Your task to perform on an android device: Search for sushi restaurants on Maps Image 0: 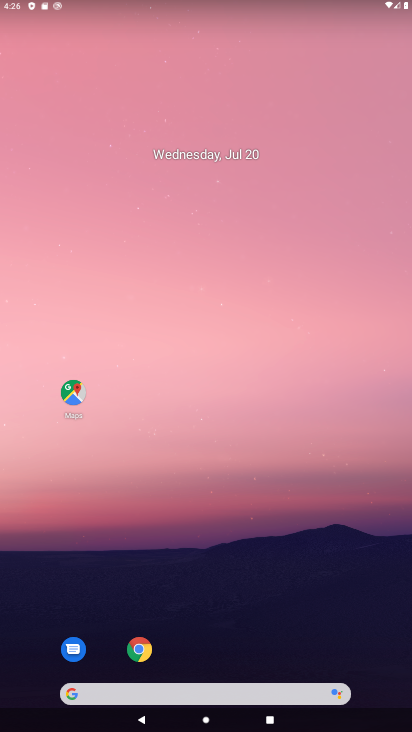
Step 0: click (70, 385)
Your task to perform on an android device: Search for sushi restaurants on Maps Image 1: 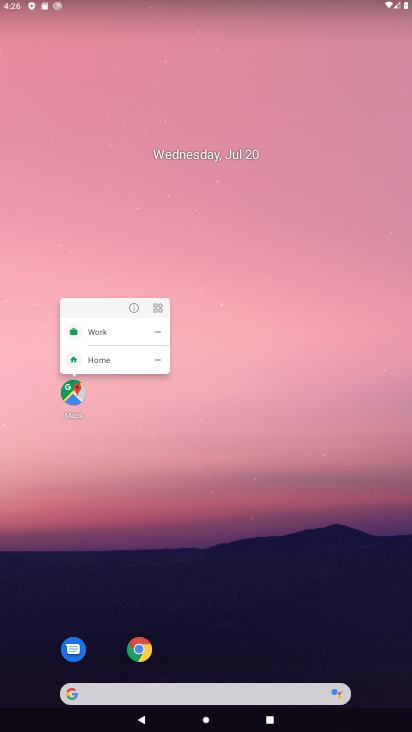
Step 1: click (77, 393)
Your task to perform on an android device: Search for sushi restaurants on Maps Image 2: 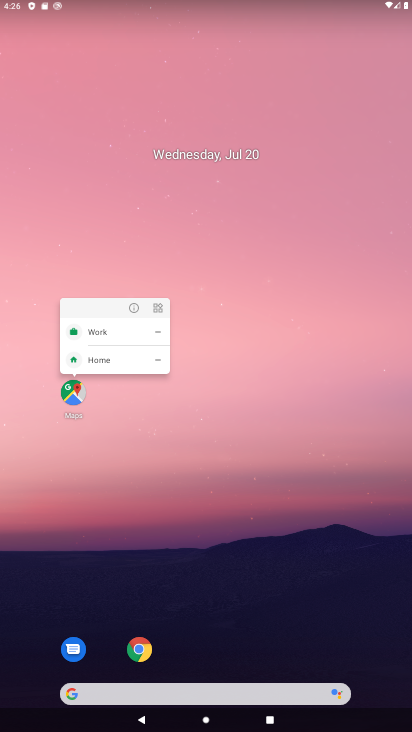
Step 2: click (66, 391)
Your task to perform on an android device: Search for sushi restaurants on Maps Image 3: 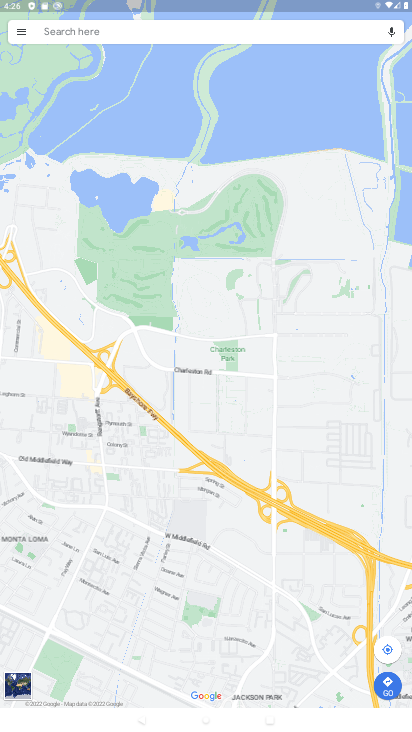
Step 3: click (115, 30)
Your task to perform on an android device: Search for sushi restaurants on Maps Image 4: 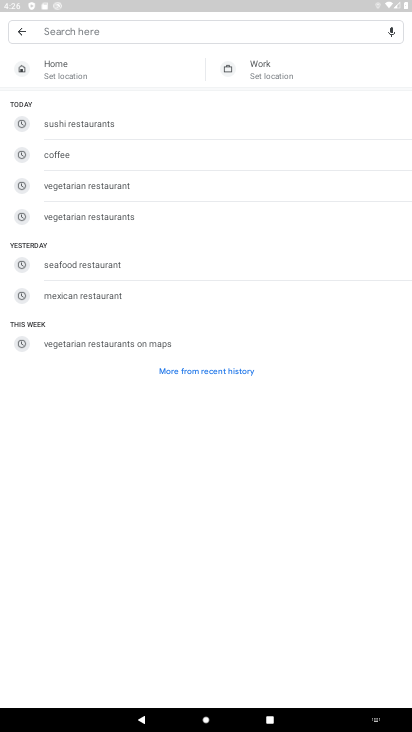
Step 4: click (97, 126)
Your task to perform on an android device: Search for sushi restaurants on Maps Image 5: 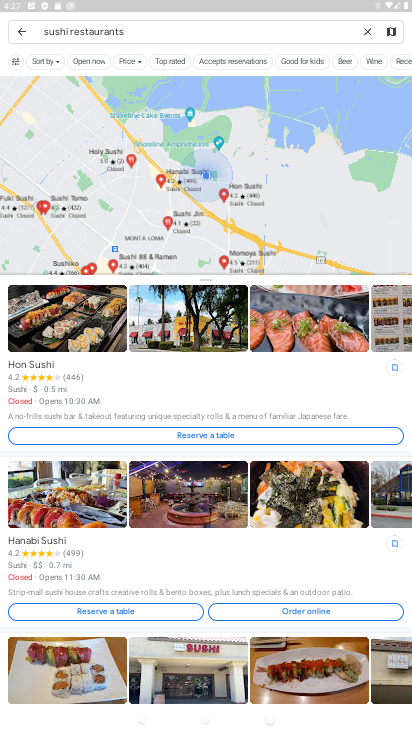
Step 5: task complete